Your task to perform on an android device: Do I have any events today? Image 0: 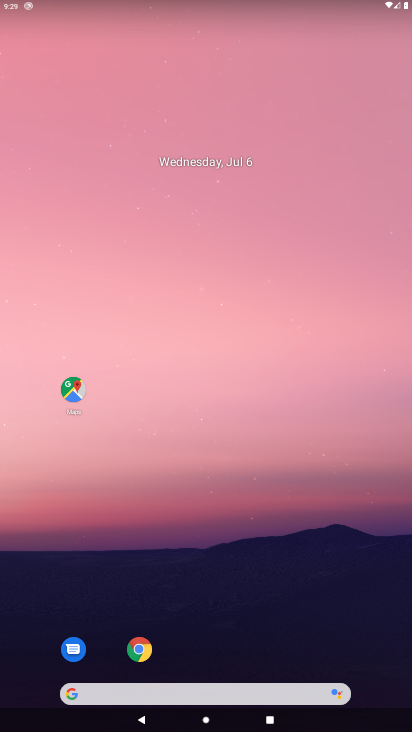
Step 0: drag from (228, 667) to (323, 128)
Your task to perform on an android device: Do I have any events today? Image 1: 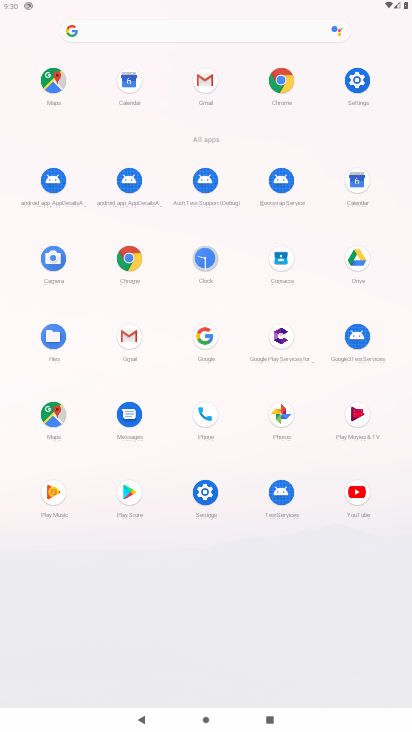
Step 1: click (360, 174)
Your task to perform on an android device: Do I have any events today? Image 2: 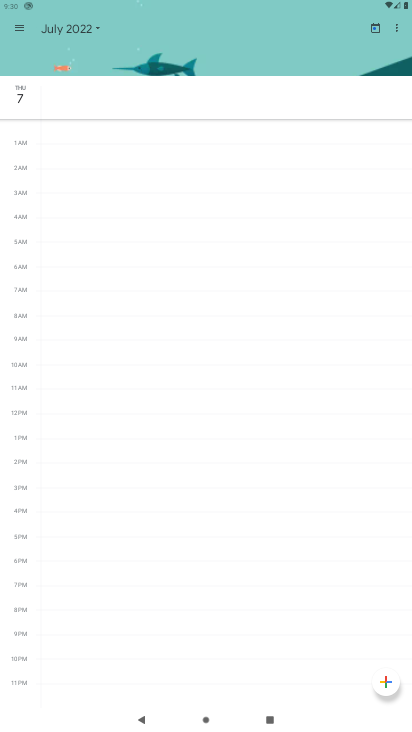
Step 2: click (93, 27)
Your task to perform on an android device: Do I have any events today? Image 3: 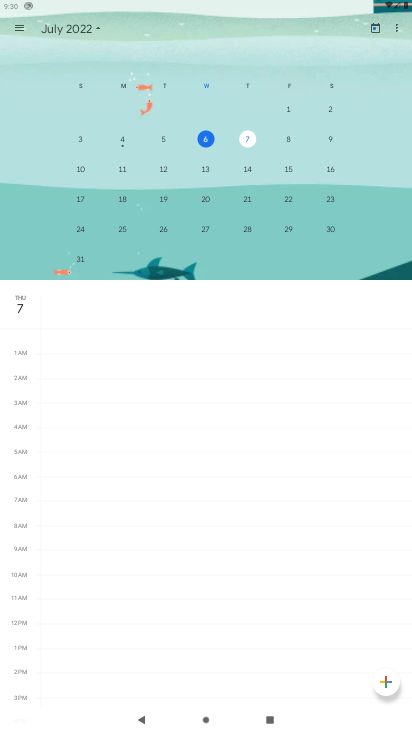
Step 3: click (206, 139)
Your task to perform on an android device: Do I have any events today? Image 4: 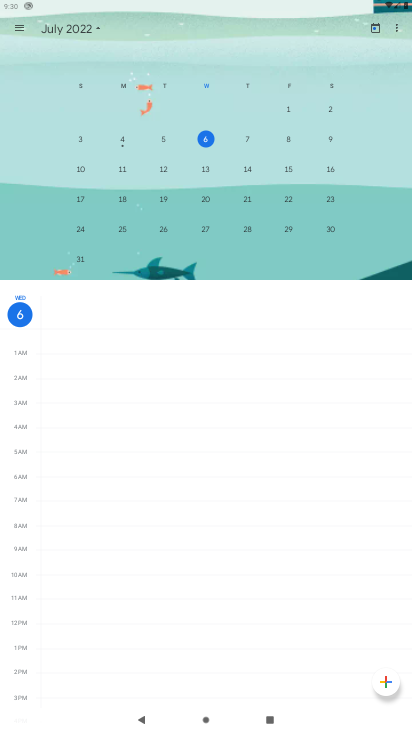
Step 4: click (93, 25)
Your task to perform on an android device: Do I have any events today? Image 5: 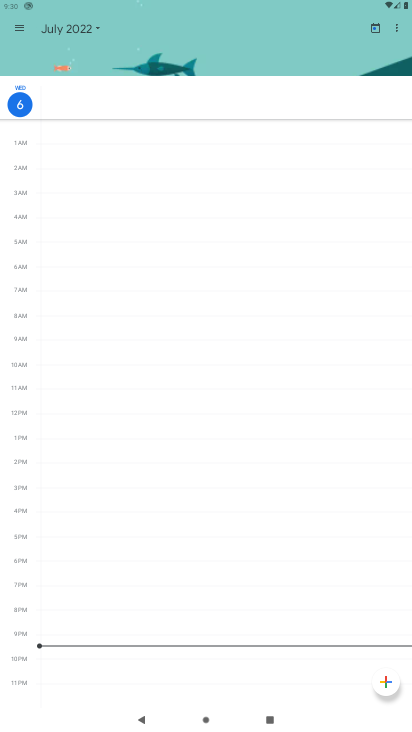
Step 5: task complete